Your task to perform on an android device: see tabs open on other devices in the chrome app Image 0: 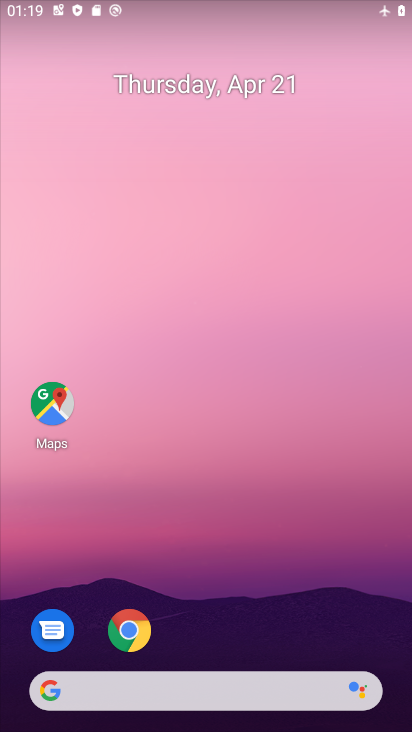
Step 0: click (118, 628)
Your task to perform on an android device: see tabs open on other devices in the chrome app Image 1: 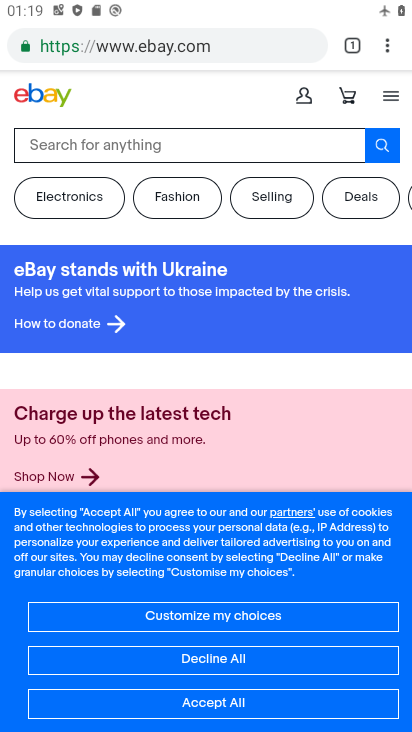
Step 1: click (385, 46)
Your task to perform on an android device: see tabs open on other devices in the chrome app Image 2: 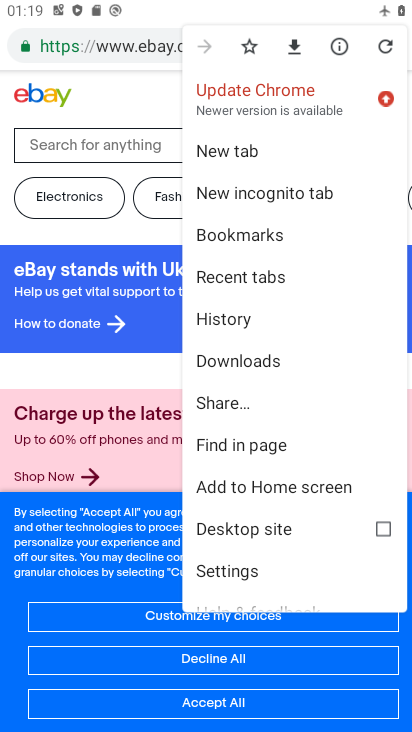
Step 2: click (269, 577)
Your task to perform on an android device: see tabs open on other devices in the chrome app Image 3: 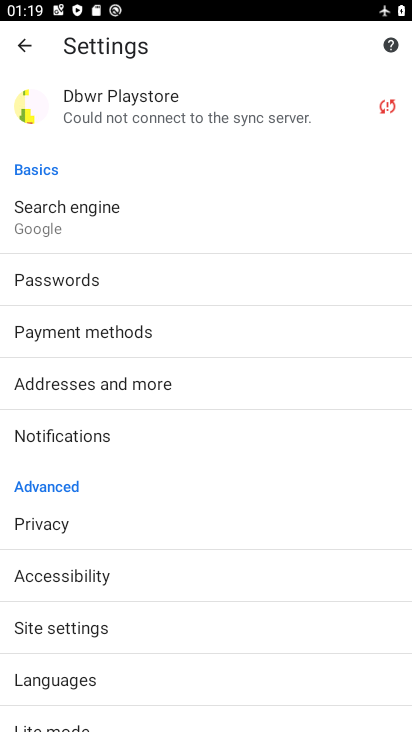
Step 3: drag from (200, 482) to (200, 417)
Your task to perform on an android device: see tabs open on other devices in the chrome app Image 4: 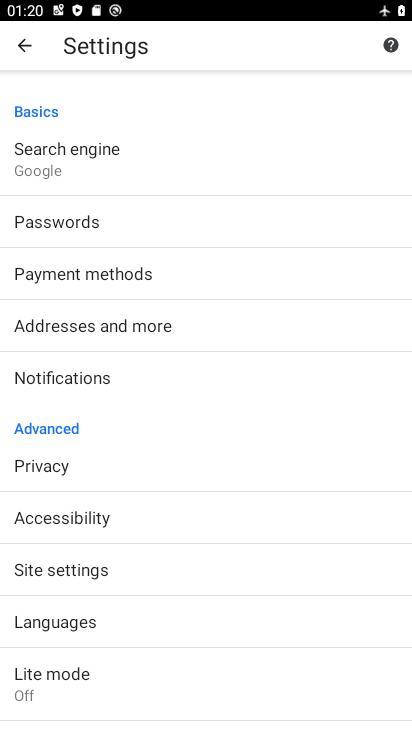
Step 4: click (31, 55)
Your task to perform on an android device: see tabs open on other devices in the chrome app Image 5: 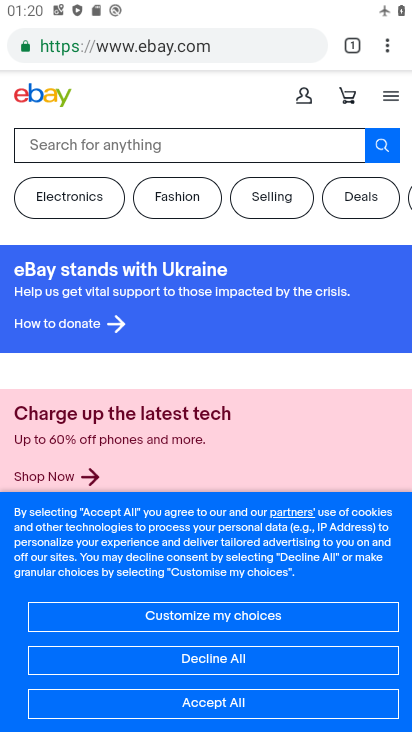
Step 5: click (392, 51)
Your task to perform on an android device: see tabs open on other devices in the chrome app Image 6: 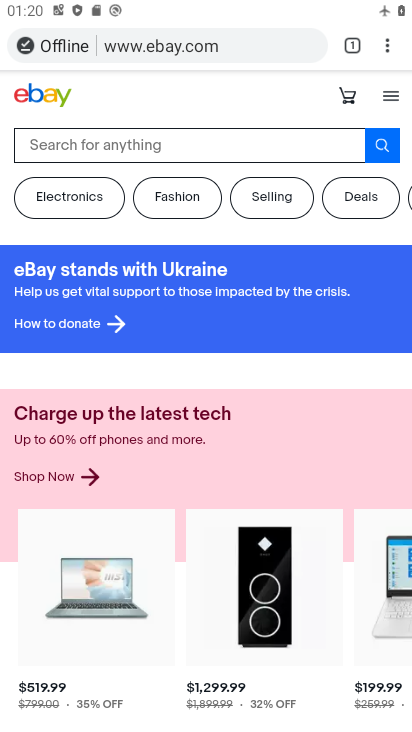
Step 6: click (379, 56)
Your task to perform on an android device: see tabs open on other devices in the chrome app Image 7: 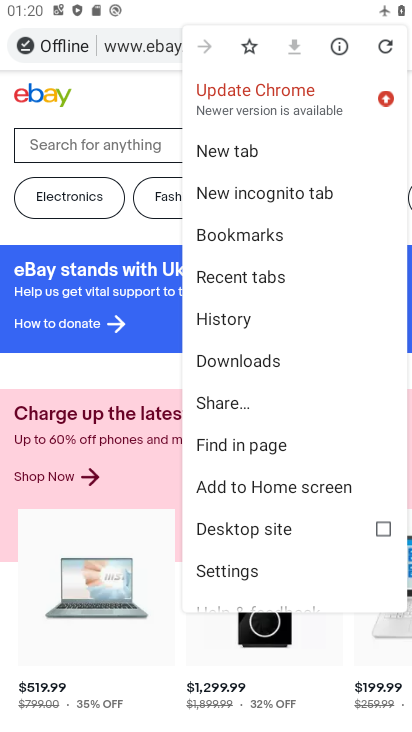
Step 7: click (240, 274)
Your task to perform on an android device: see tabs open on other devices in the chrome app Image 8: 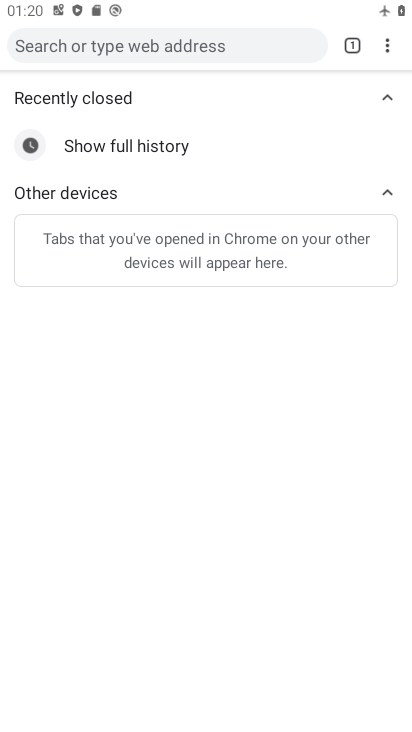
Step 8: task complete